Your task to perform on an android device: Open the map Image 0: 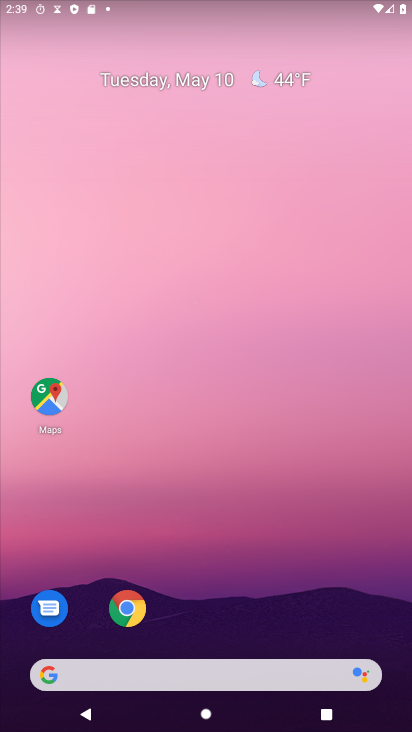
Step 0: click (45, 403)
Your task to perform on an android device: Open the map Image 1: 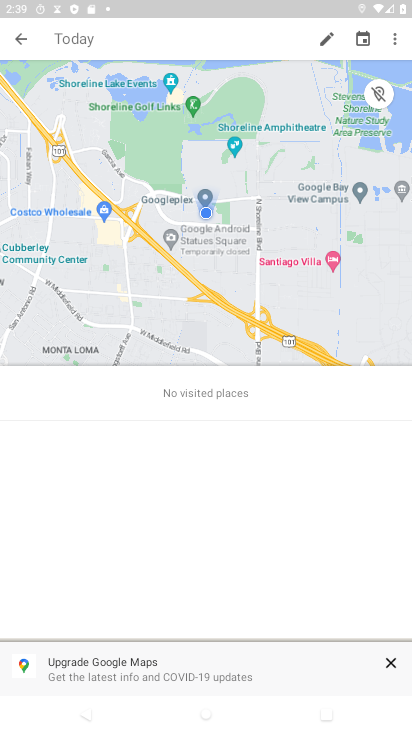
Step 1: task complete